Your task to perform on an android device: Go to wifi settings Image 0: 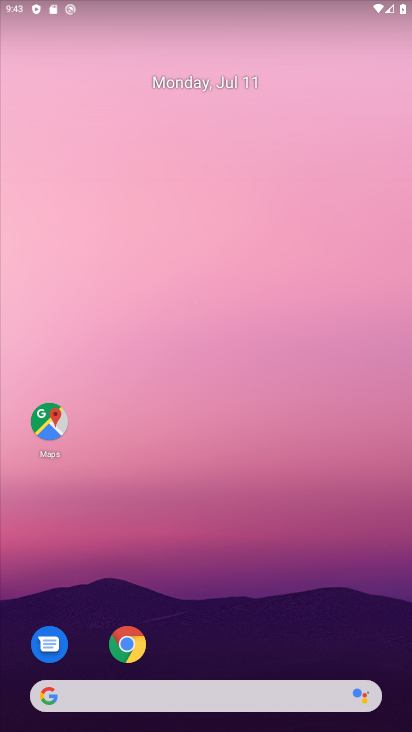
Step 0: drag from (220, 646) to (197, 169)
Your task to perform on an android device: Go to wifi settings Image 1: 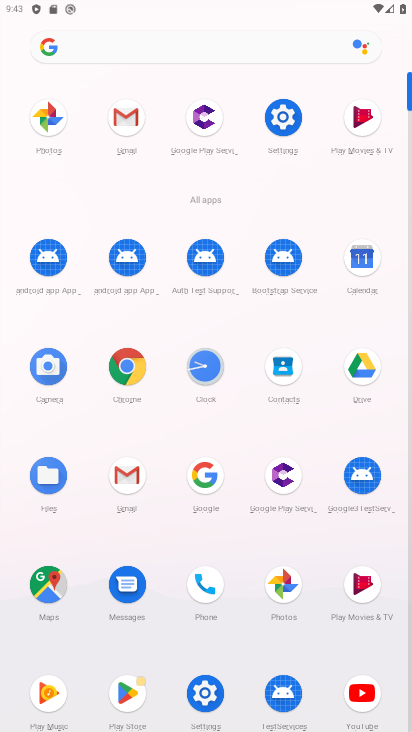
Step 1: click (292, 112)
Your task to perform on an android device: Go to wifi settings Image 2: 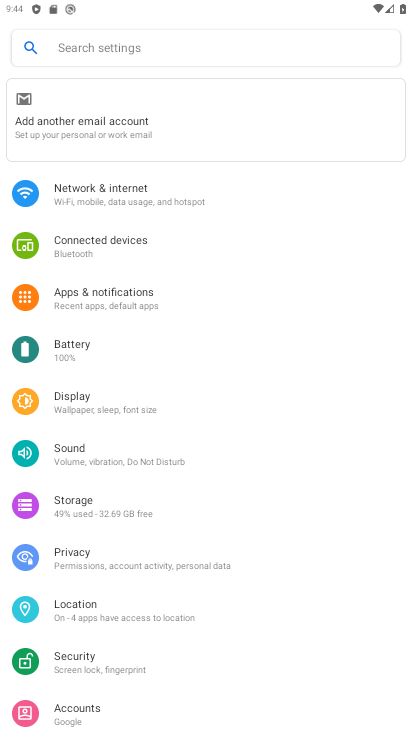
Step 2: click (105, 190)
Your task to perform on an android device: Go to wifi settings Image 3: 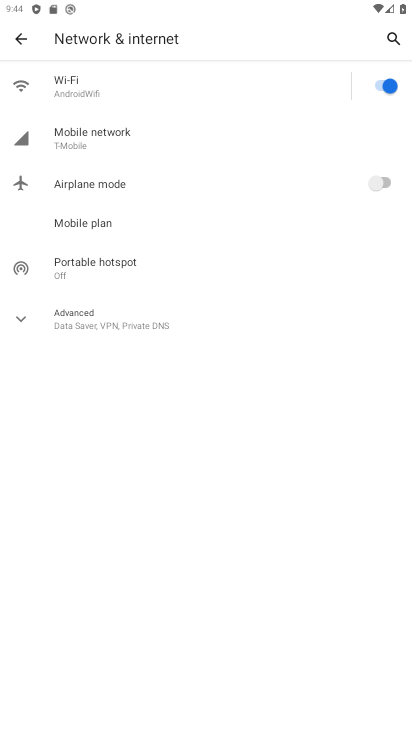
Step 3: click (71, 80)
Your task to perform on an android device: Go to wifi settings Image 4: 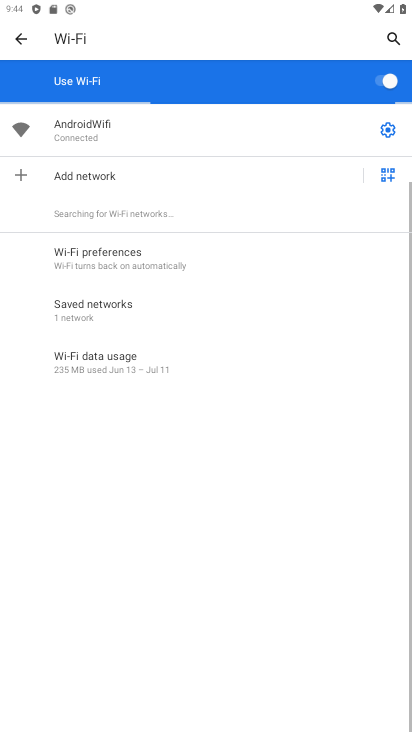
Step 4: task complete